Your task to perform on an android device: Open battery settings Image 0: 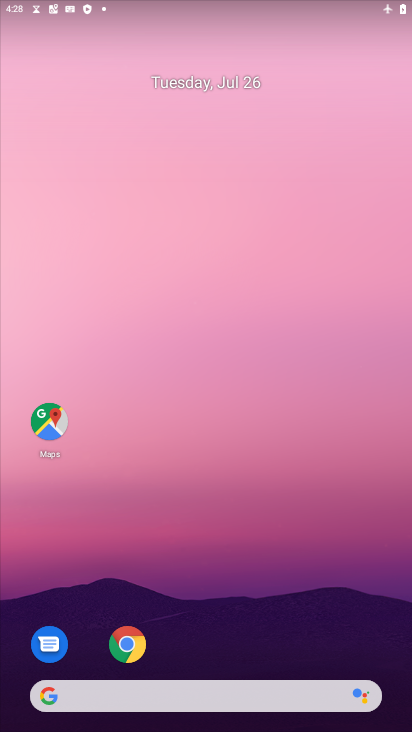
Step 0: drag from (230, 639) to (132, 24)
Your task to perform on an android device: Open battery settings Image 1: 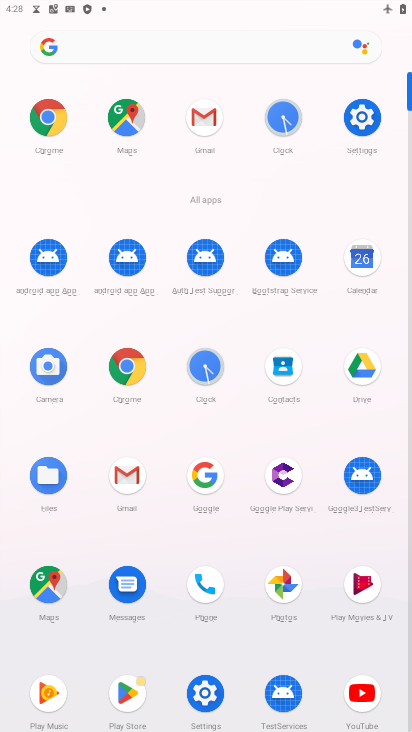
Step 1: click (366, 121)
Your task to perform on an android device: Open battery settings Image 2: 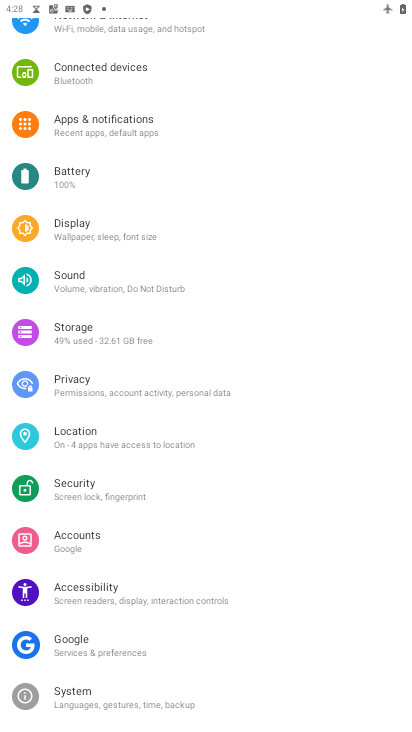
Step 2: click (107, 177)
Your task to perform on an android device: Open battery settings Image 3: 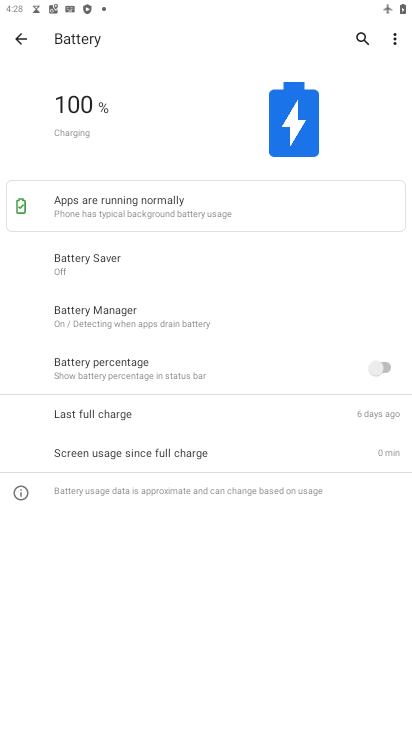
Step 3: task complete